Your task to perform on an android device: Go to location settings Image 0: 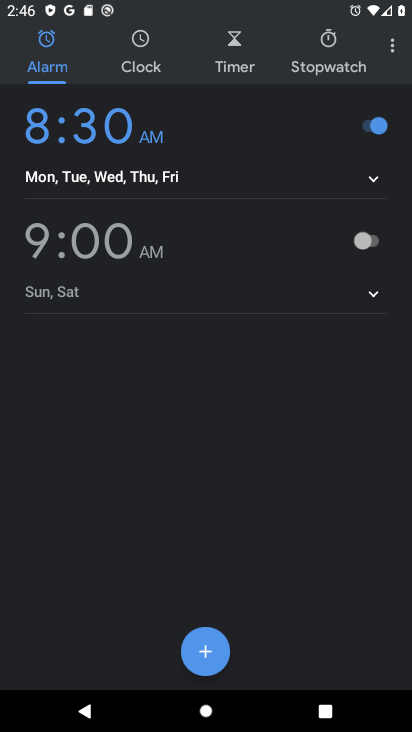
Step 0: press home button
Your task to perform on an android device: Go to location settings Image 1: 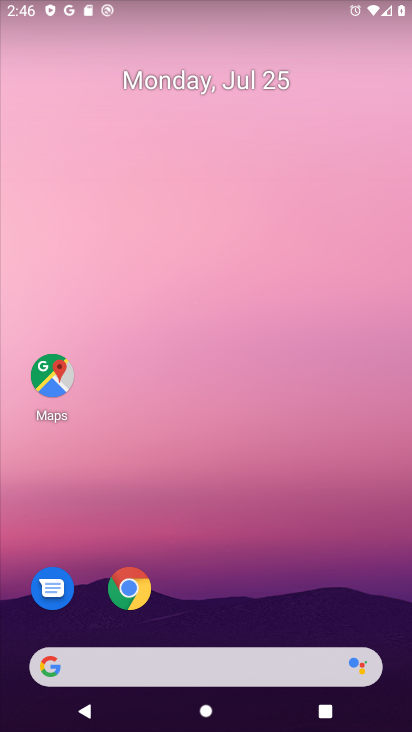
Step 1: drag from (221, 627) to (211, 8)
Your task to perform on an android device: Go to location settings Image 2: 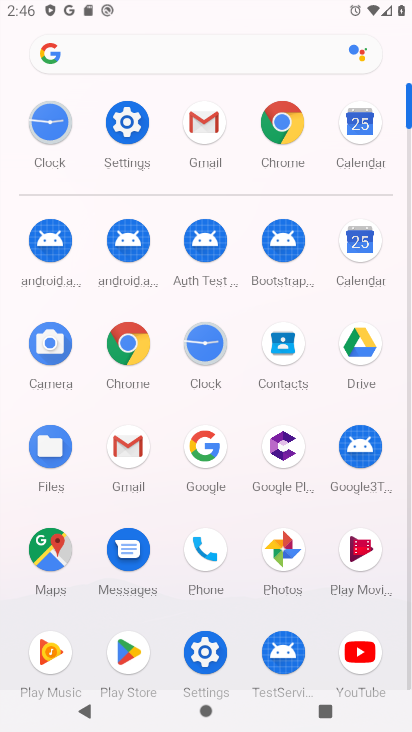
Step 2: click (123, 116)
Your task to perform on an android device: Go to location settings Image 3: 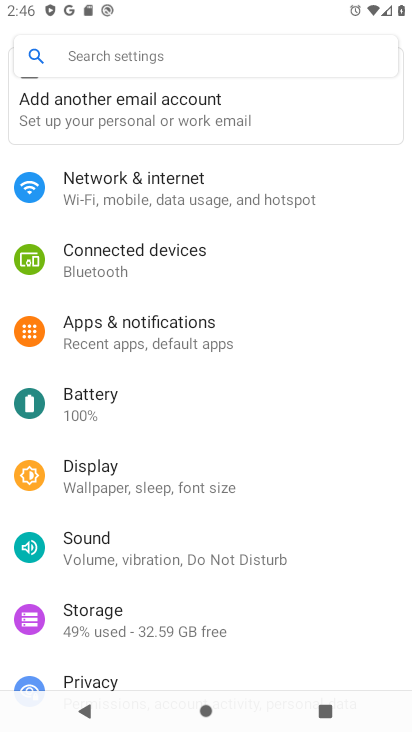
Step 3: drag from (152, 658) to (149, 91)
Your task to perform on an android device: Go to location settings Image 4: 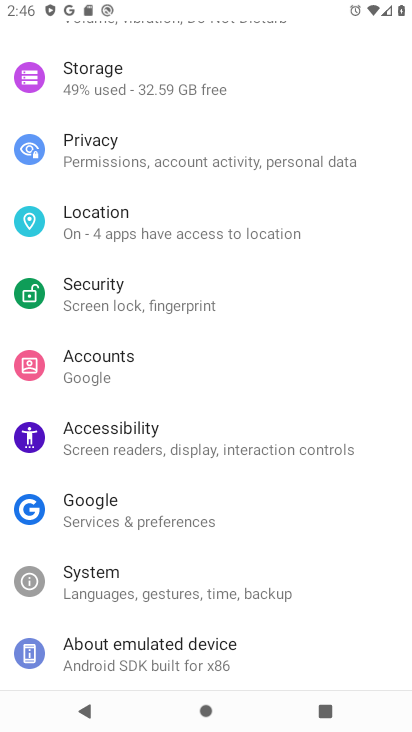
Step 4: click (155, 216)
Your task to perform on an android device: Go to location settings Image 5: 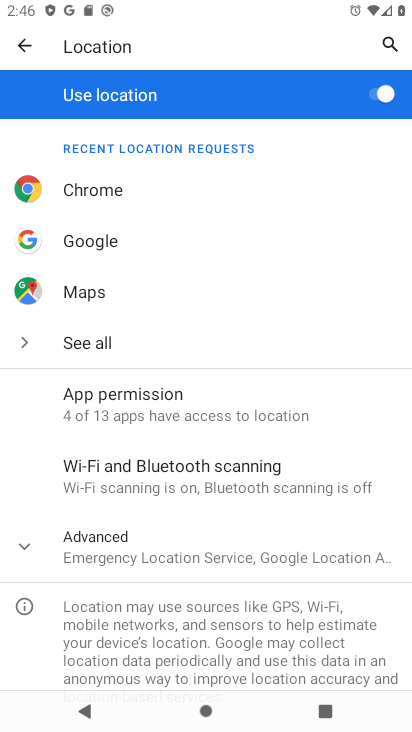
Step 5: click (21, 543)
Your task to perform on an android device: Go to location settings Image 6: 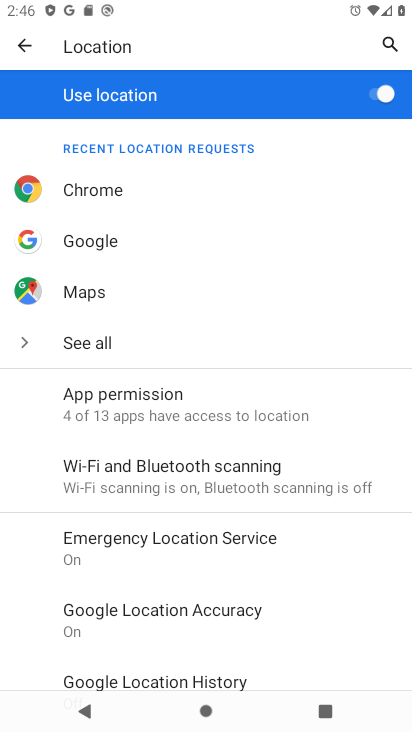
Step 6: task complete